Your task to perform on an android device: toggle sleep mode Image 0: 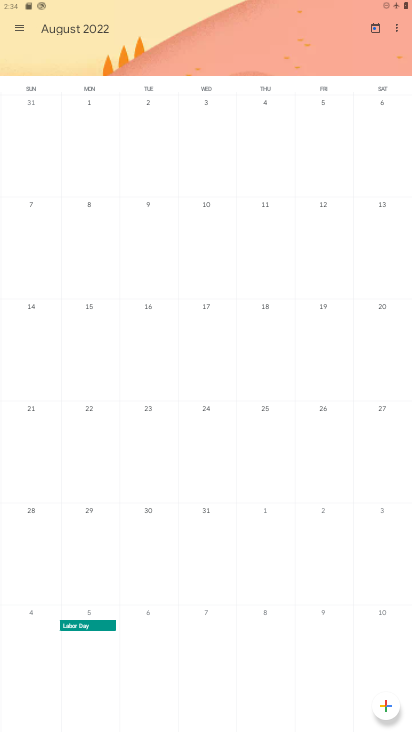
Step 0: press home button
Your task to perform on an android device: toggle sleep mode Image 1: 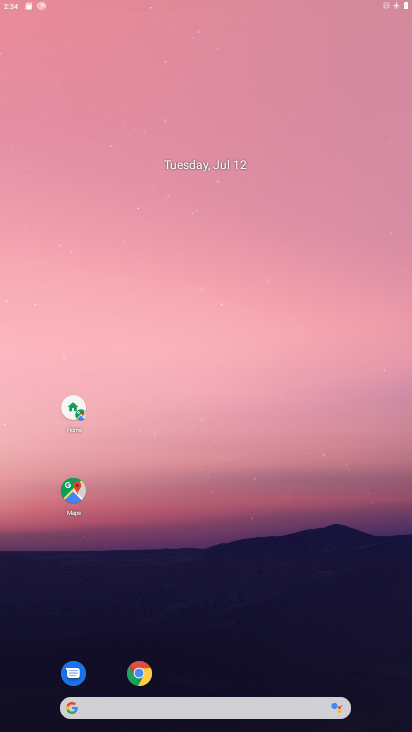
Step 1: drag from (207, 591) to (208, 278)
Your task to perform on an android device: toggle sleep mode Image 2: 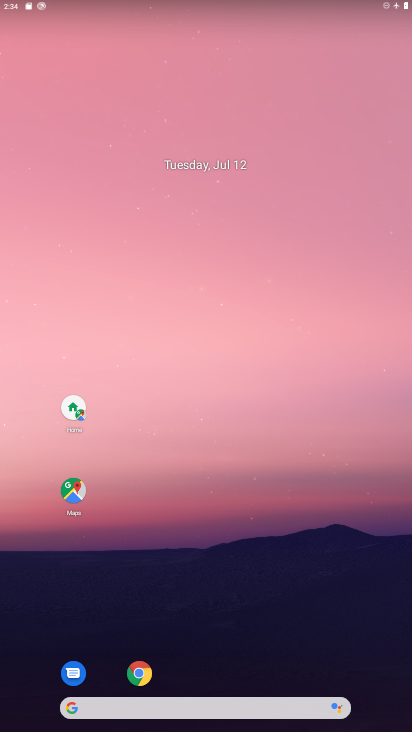
Step 2: drag from (248, 699) to (254, 318)
Your task to perform on an android device: toggle sleep mode Image 3: 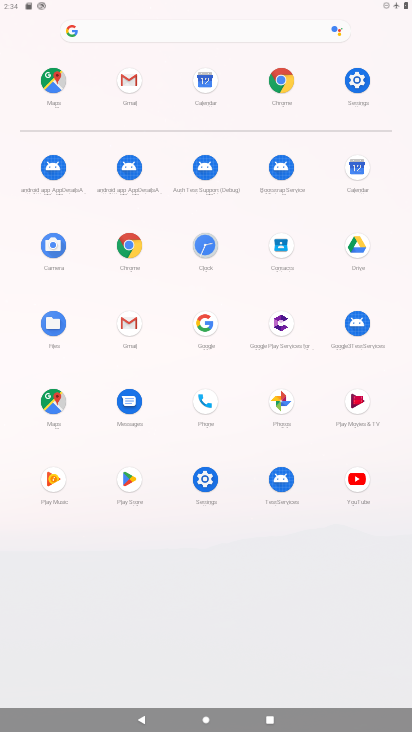
Step 3: click (357, 81)
Your task to perform on an android device: toggle sleep mode Image 4: 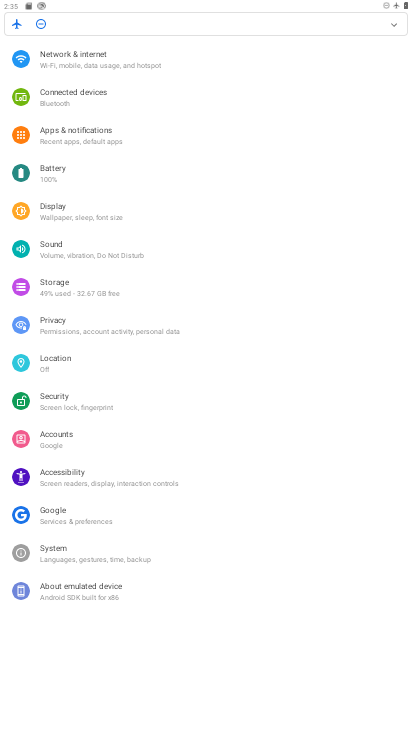
Step 4: task complete